Your task to perform on an android device: Open Youtube and go to the subscriptions tab Image 0: 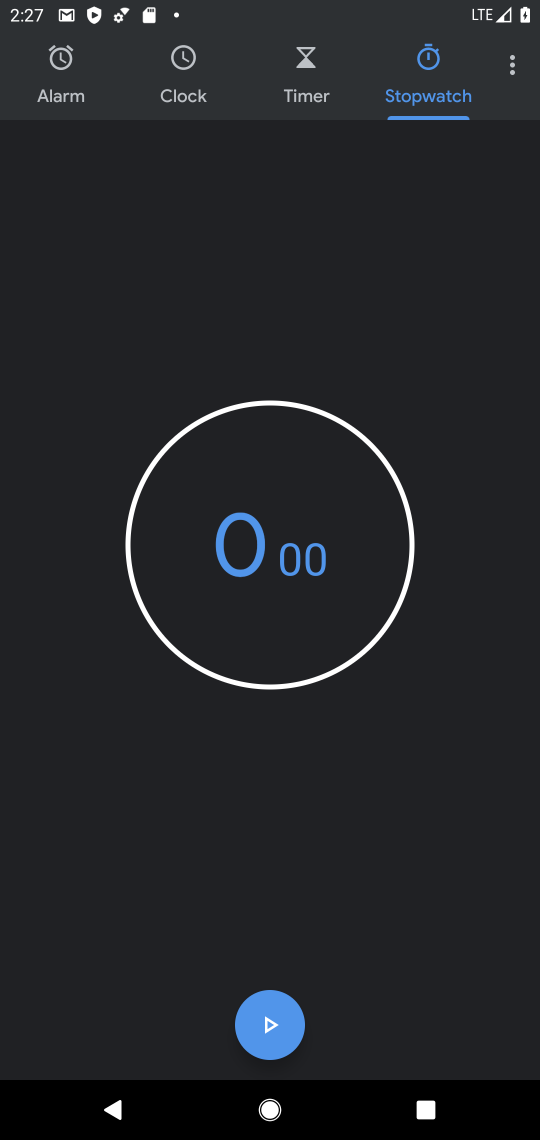
Step 0: press home button
Your task to perform on an android device: Open Youtube and go to the subscriptions tab Image 1: 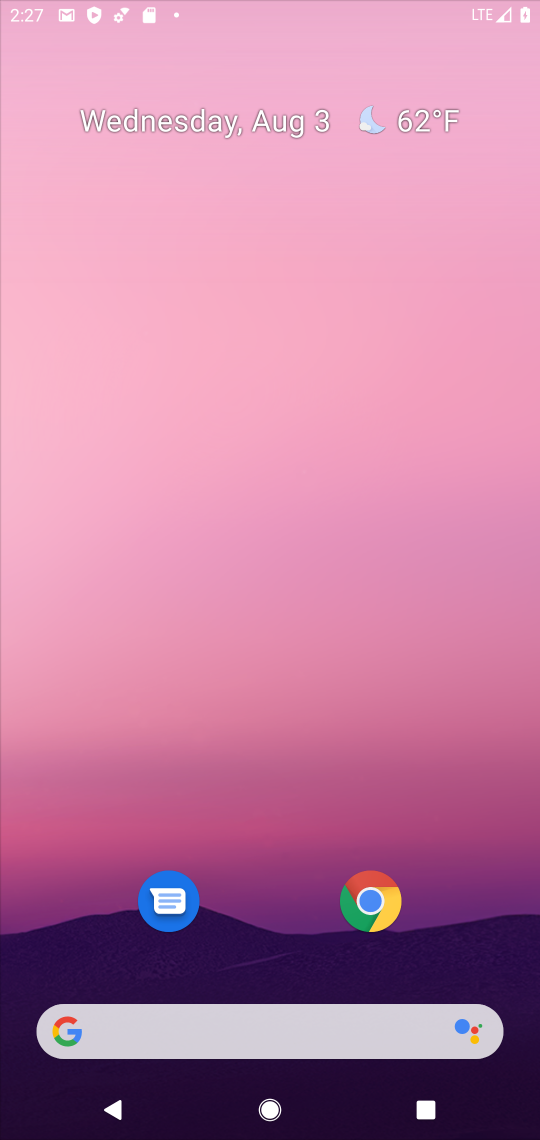
Step 1: drag from (304, 1057) to (350, 392)
Your task to perform on an android device: Open Youtube and go to the subscriptions tab Image 2: 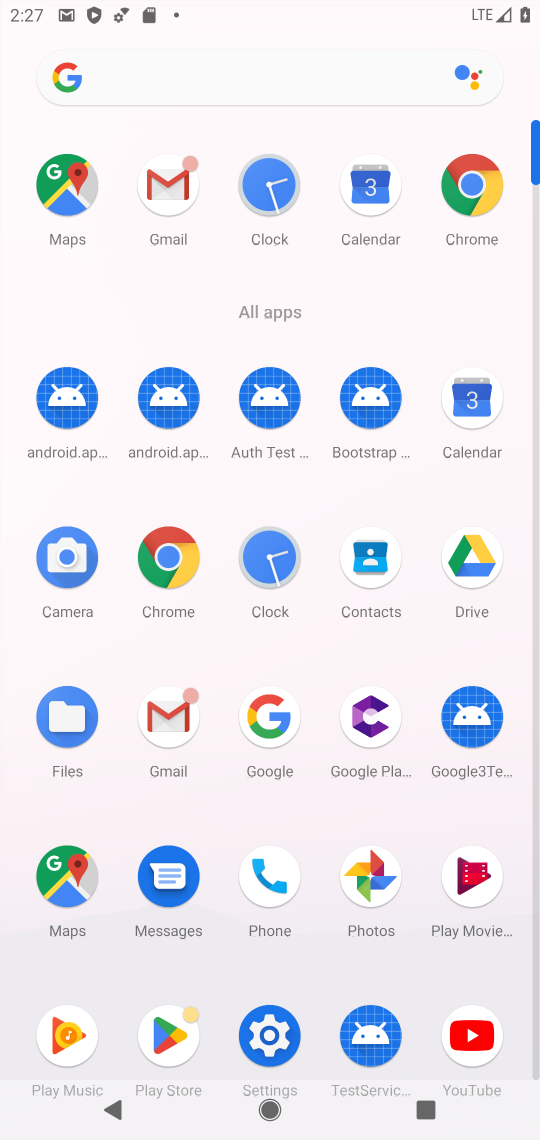
Step 2: click (481, 1044)
Your task to perform on an android device: Open Youtube and go to the subscriptions tab Image 3: 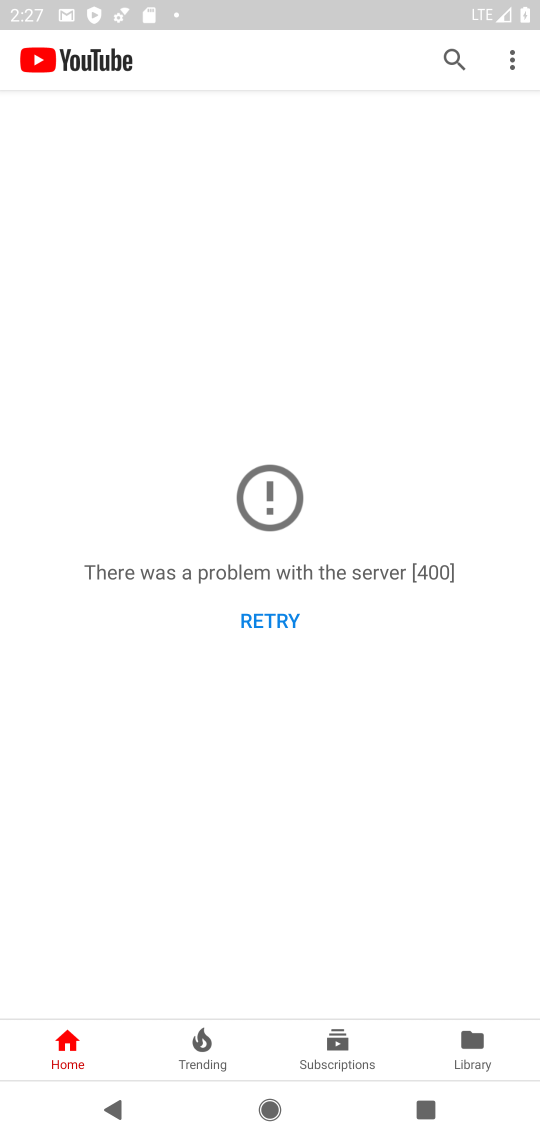
Step 3: click (323, 1030)
Your task to perform on an android device: Open Youtube and go to the subscriptions tab Image 4: 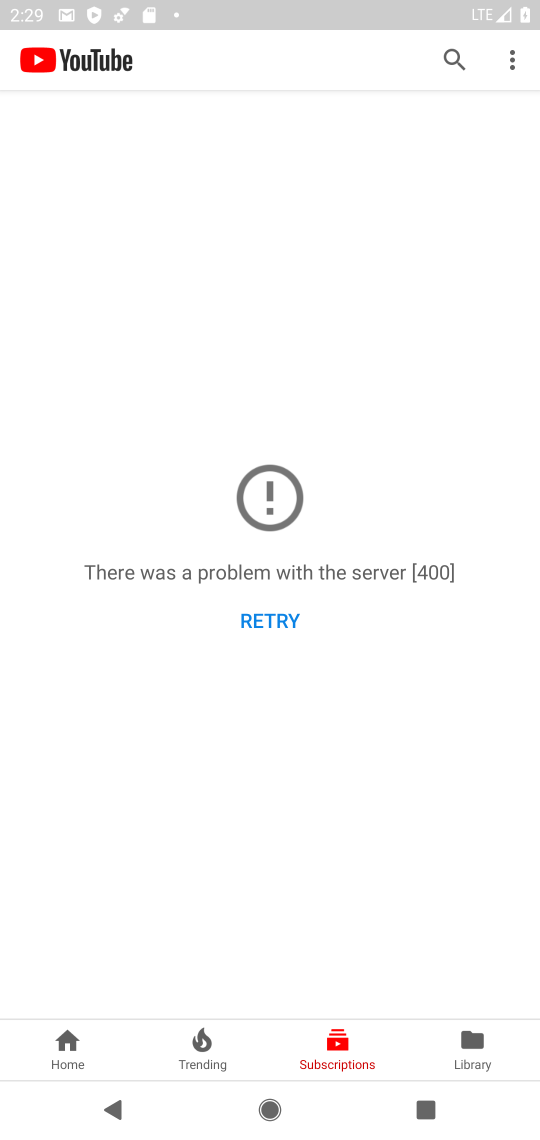
Step 4: task complete